Your task to perform on an android device: set an alarm Image 0: 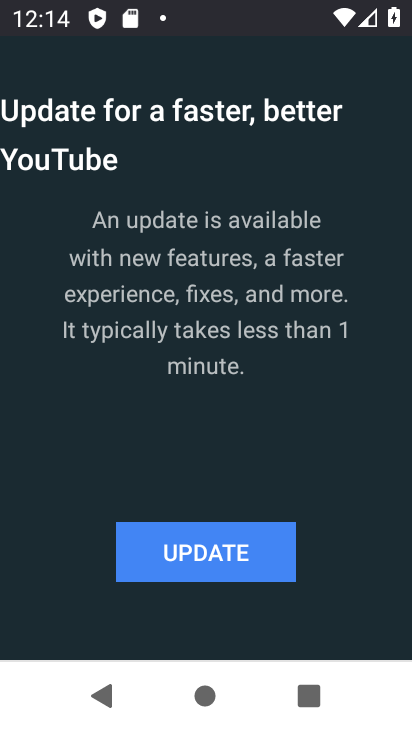
Step 0: press home button
Your task to perform on an android device: set an alarm Image 1: 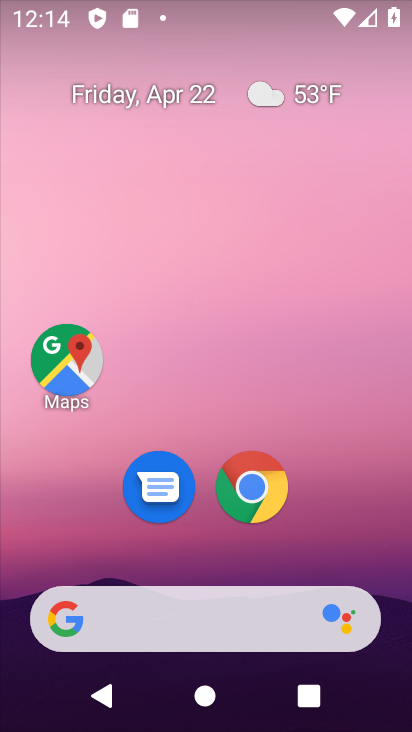
Step 1: drag from (348, 527) to (345, 76)
Your task to perform on an android device: set an alarm Image 2: 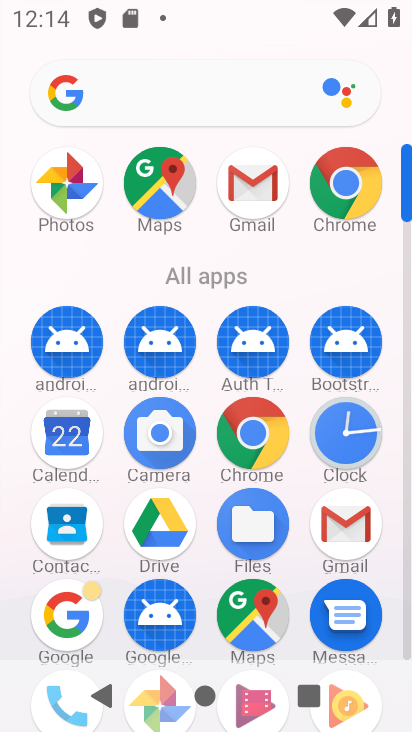
Step 2: click (343, 430)
Your task to perform on an android device: set an alarm Image 3: 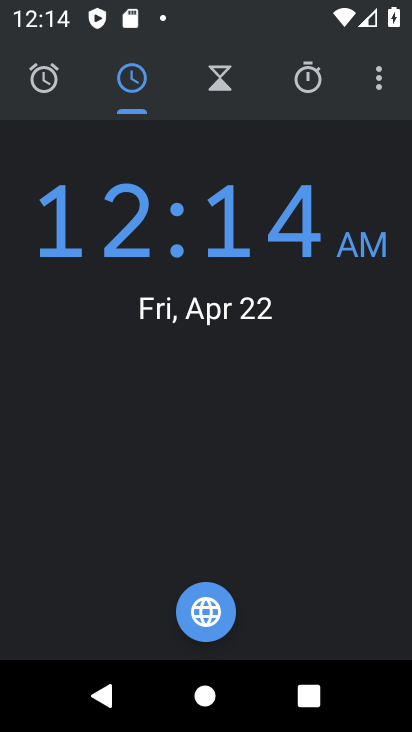
Step 3: click (40, 80)
Your task to perform on an android device: set an alarm Image 4: 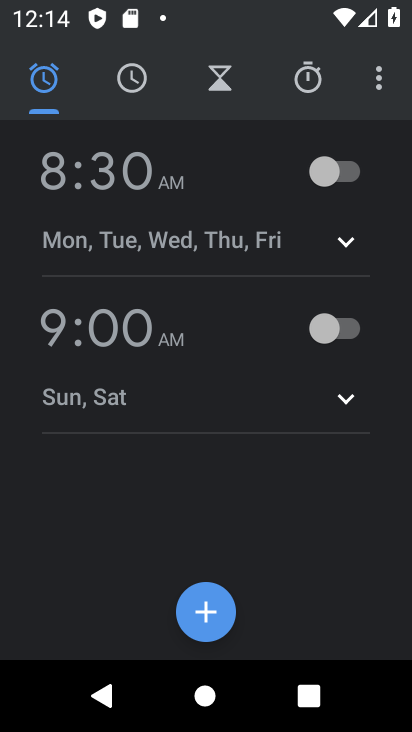
Step 4: click (212, 605)
Your task to perform on an android device: set an alarm Image 5: 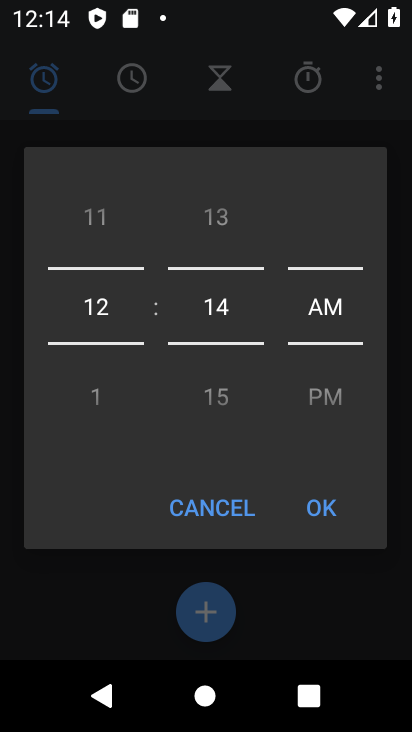
Step 5: drag from (224, 385) to (226, 291)
Your task to perform on an android device: set an alarm Image 6: 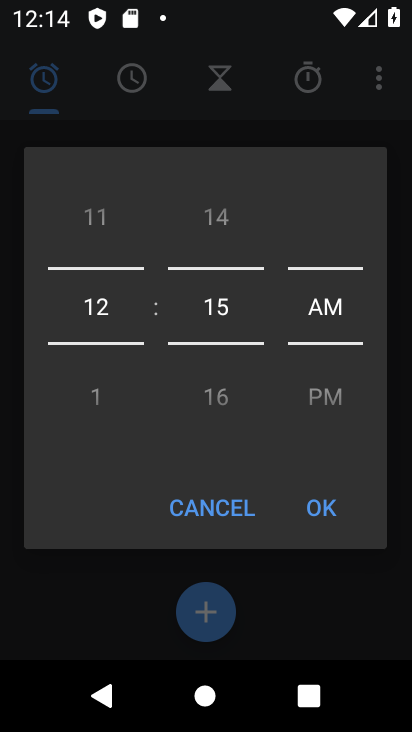
Step 6: drag from (324, 409) to (325, 274)
Your task to perform on an android device: set an alarm Image 7: 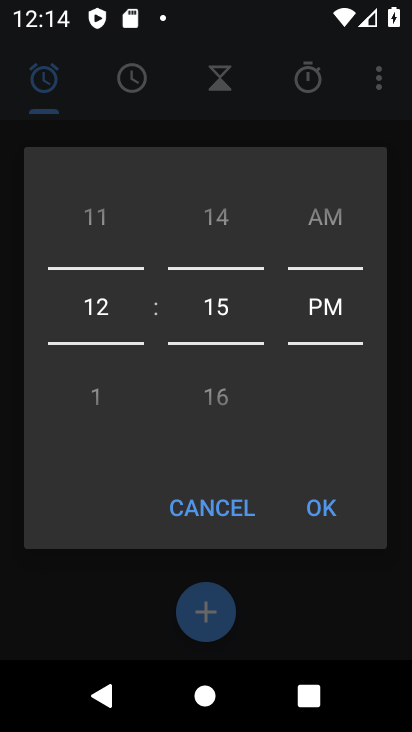
Step 7: click (324, 501)
Your task to perform on an android device: set an alarm Image 8: 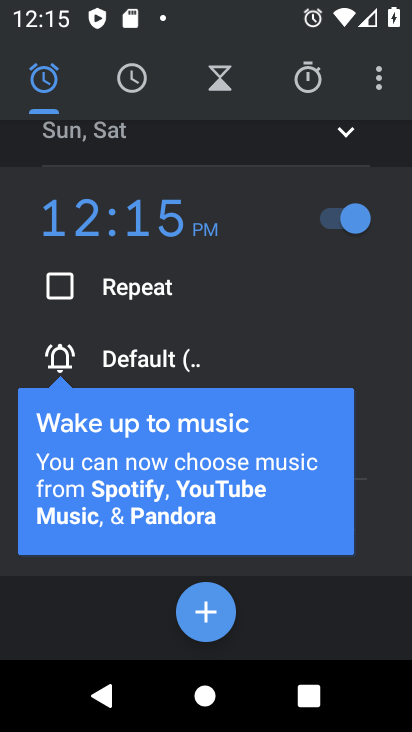
Step 8: task complete